Your task to perform on an android device: change your default location settings in chrome Image 0: 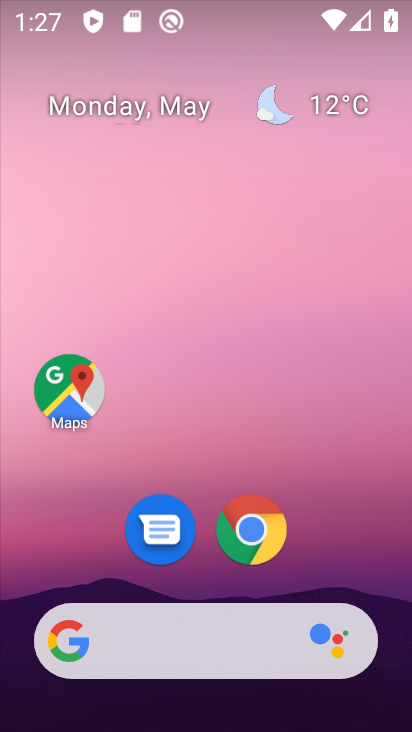
Step 0: click (256, 535)
Your task to perform on an android device: change your default location settings in chrome Image 1: 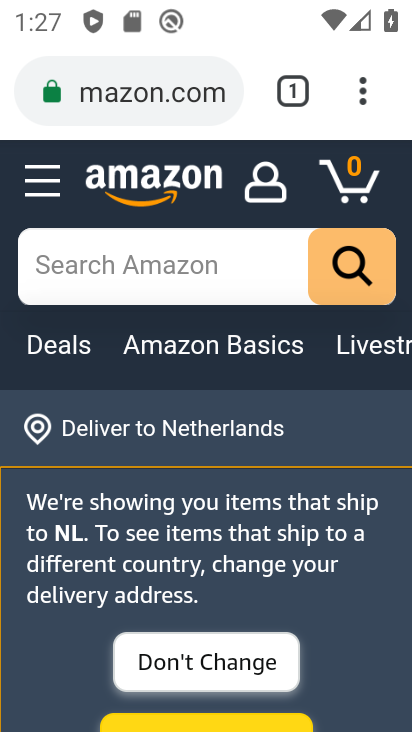
Step 1: click (362, 97)
Your task to perform on an android device: change your default location settings in chrome Image 2: 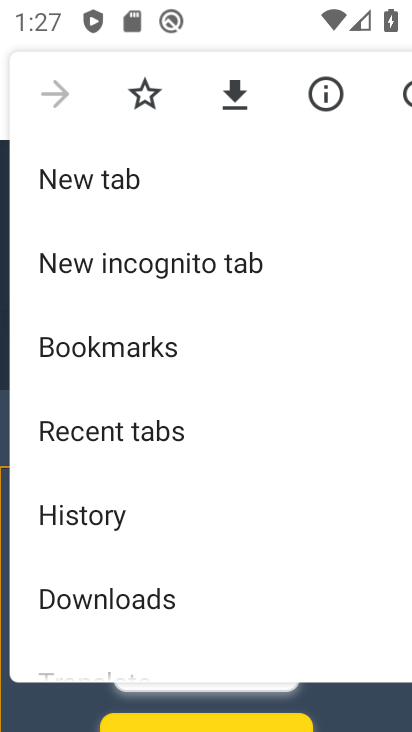
Step 2: drag from (206, 560) to (234, 200)
Your task to perform on an android device: change your default location settings in chrome Image 3: 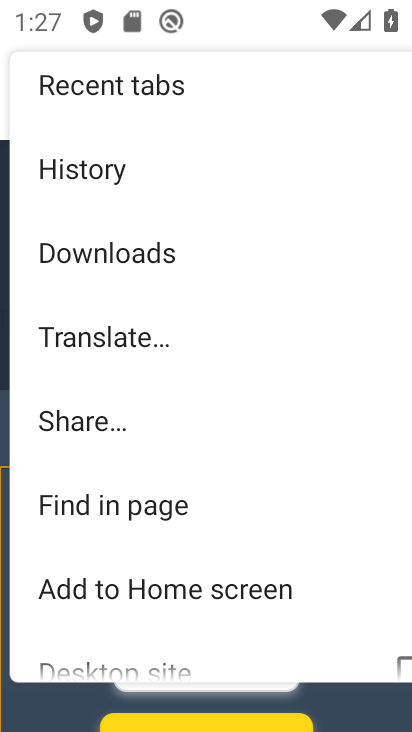
Step 3: drag from (335, 558) to (303, 252)
Your task to perform on an android device: change your default location settings in chrome Image 4: 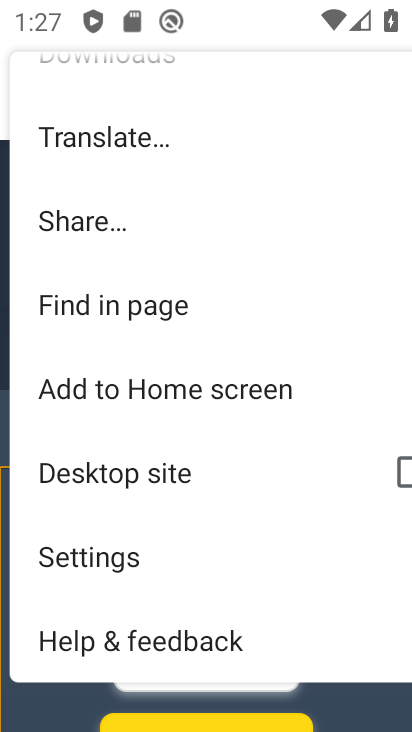
Step 4: click (117, 554)
Your task to perform on an android device: change your default location settings in chrome Image 5: 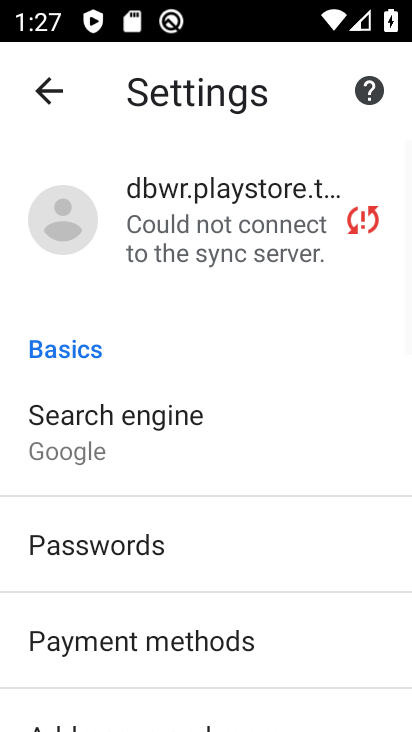
Step 5: drag from (295, 644) to (228, 193)
Your task to perform on an android device: change your default location settings in chrome Image 6: 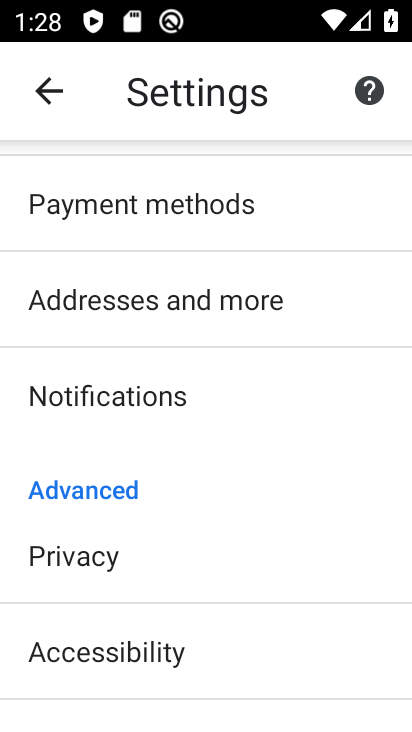
Step 6: drag from (227, 646) to (201, 192)
Your task to perform on an android device: change your default location settings in chrome Image 7: 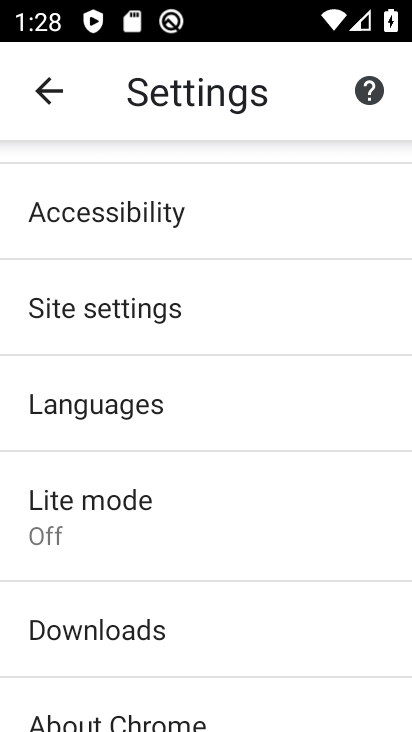
Step 7: click (108, 312)
Your task to perform on an android device: change your default location settings in chrome Image 8: 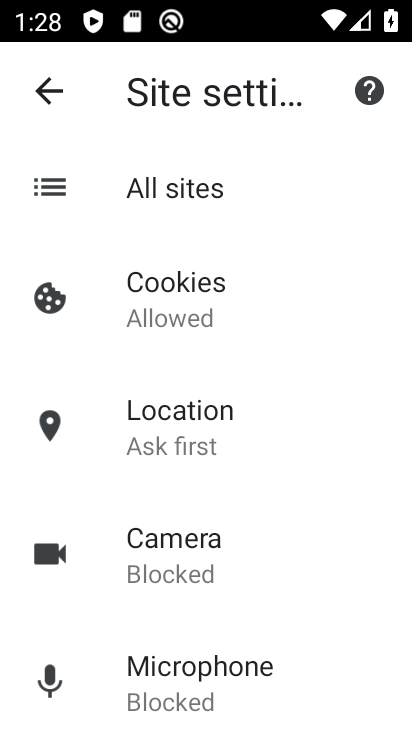
Step 8: click (171, 419)
Your task to perform on an android device: change your default location settings in chrome Image 9: 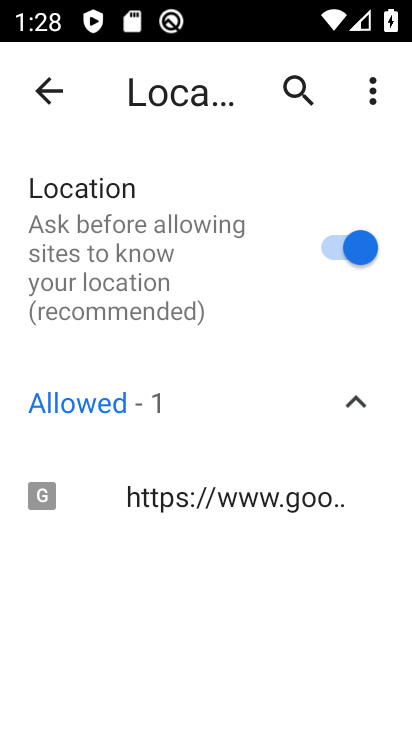
Step 9: click (327, 244)
Your task to perform on an android device: change your default location settings in chrome Image 10: 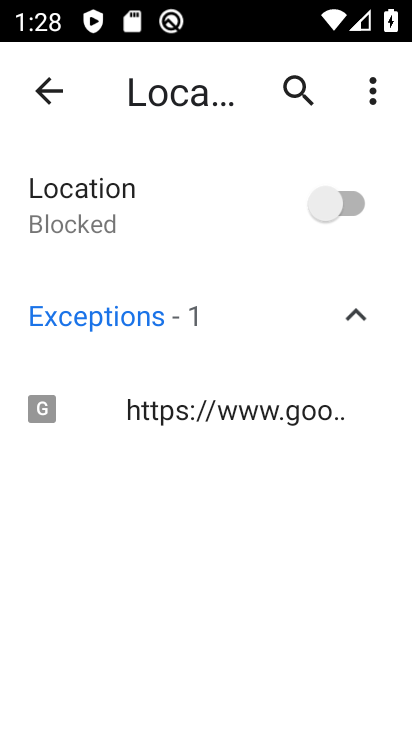
Step 10: task complete